Your task to perform on an android device: Open Google Chrome and open the bookmarks view Image 0: 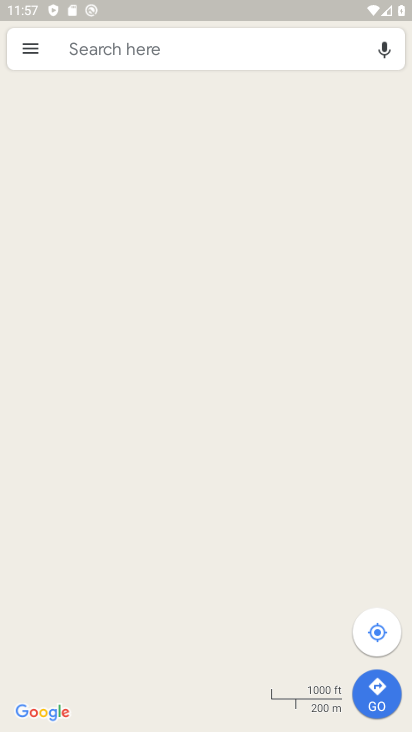
Step 0: press home button
Your task to perform on an android device: Open Google Chrome and open the bookmarks view Image 1: 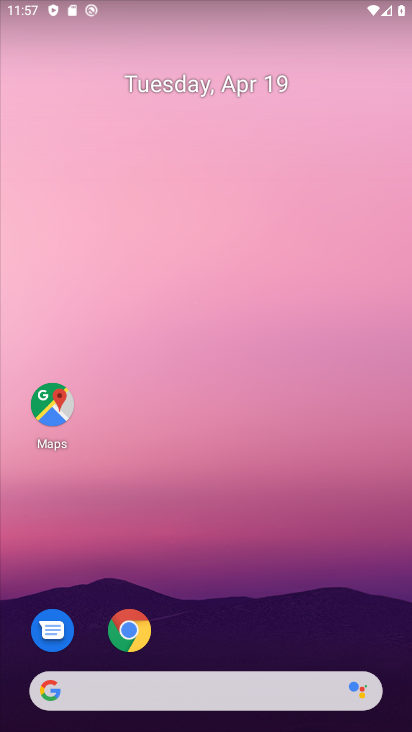
Step 1: drag from (145, 674) to (237, 112)
Your task to perform on an android device: Open Google Chrome and open the bookmarks view Image 2: 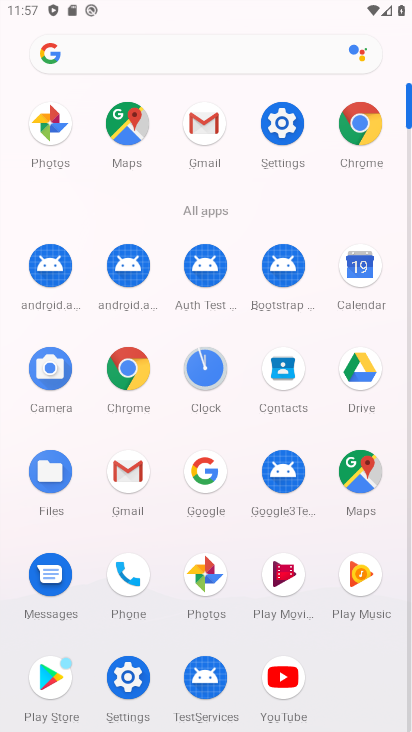
Step 2: click (364, 129)
Your task to perform on an android device: Open Google Chrome and open the bookmarks view Image 3: 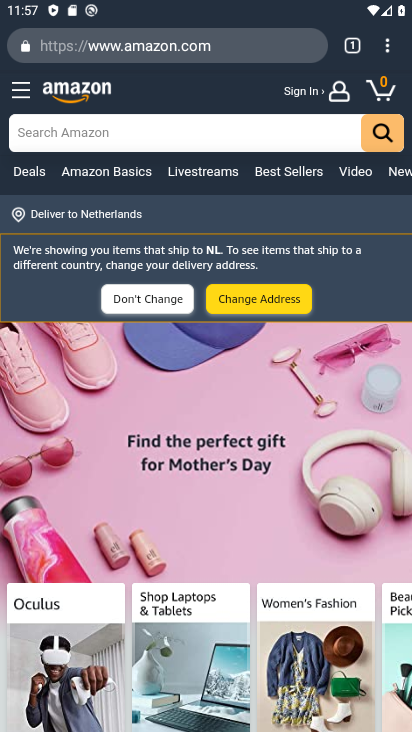
Step 3: click (390, 48)
Your task to perform on an android device: Open Google Chrome and open the bookmarks view Image 4: 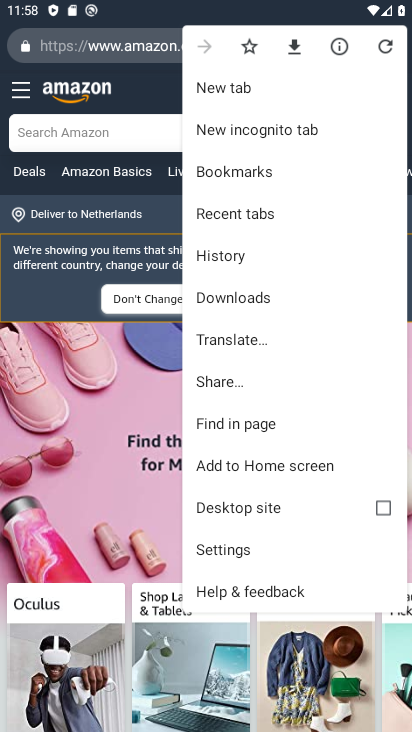
Step 4: click (255, 171)
Your task to perform on an android device: Open Google Chrome and open the bookmarks view Image 5: 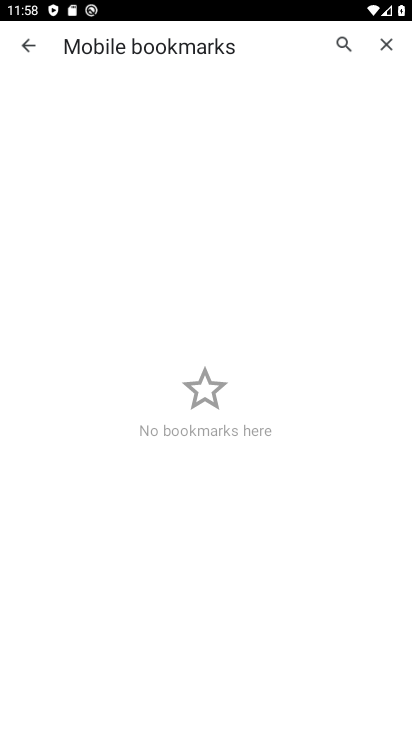
Step 5: task complete